Your task to perform on an android device: choose inbox layout in the gmail app Image 0: 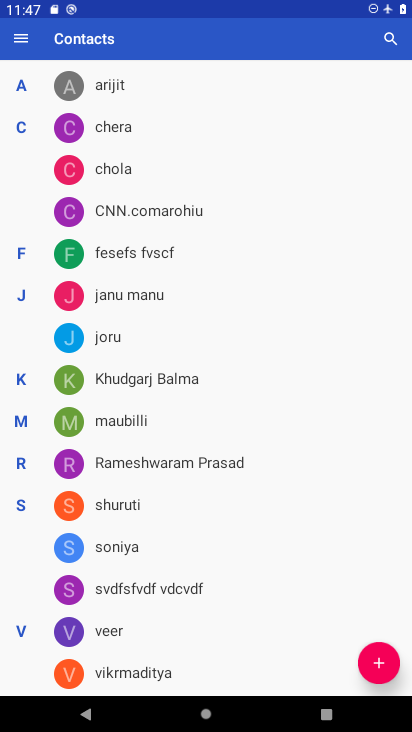
Step 0: press home button
Your task to perform on an android device: choose inbox layout in the gmail app Image 1: 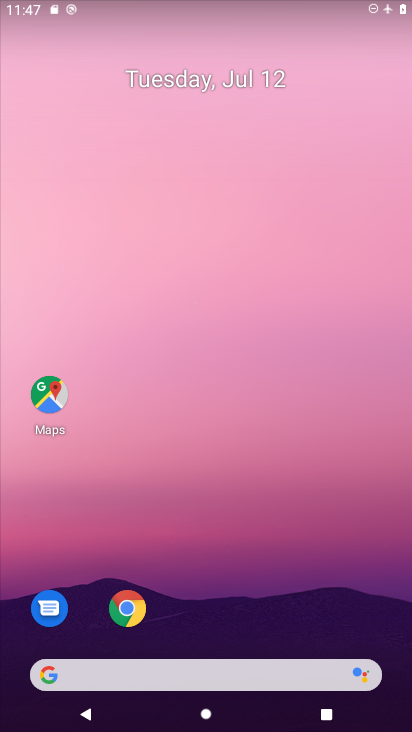
Step 1: drag from (238, 718) to (252, 117)
Your task to perform on an android device: choose inbox layout in the gmail app Image 2: 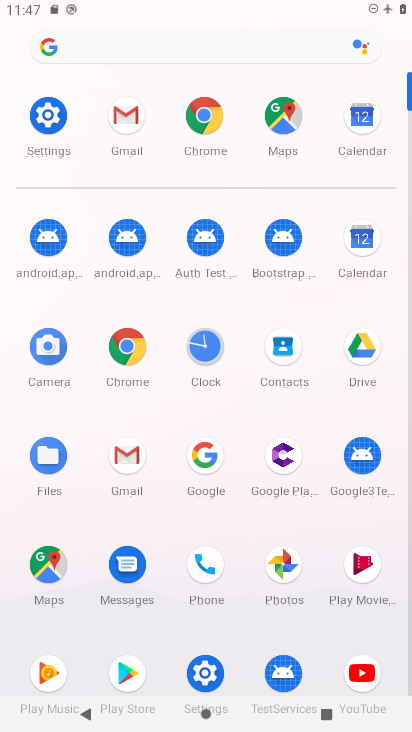
Step 2: click (127, 458)
Your task to perform on an android device: choose inbox layout in the gmail app Image 3: 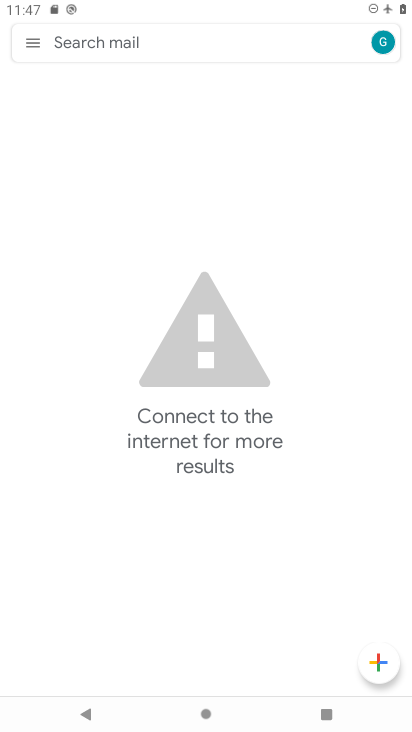
Step 3: click (26, 38)
Your task to perform on an android device: choose inbox layout in the gmail app Image 4: 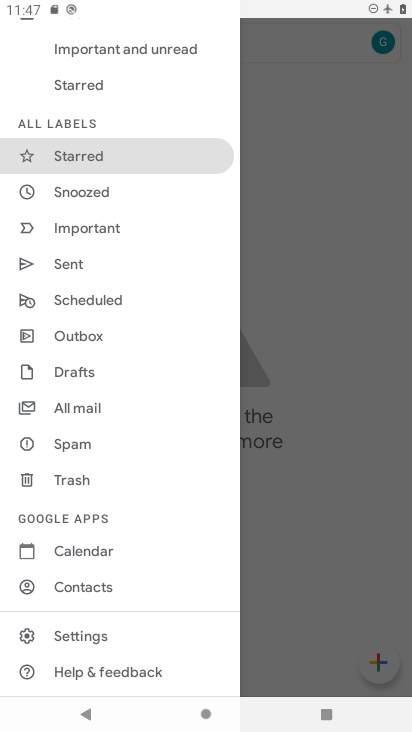
Step 4: click (84, 633)
Your task to perform on an android device: choose inbox layout in the gmail app Image 5: 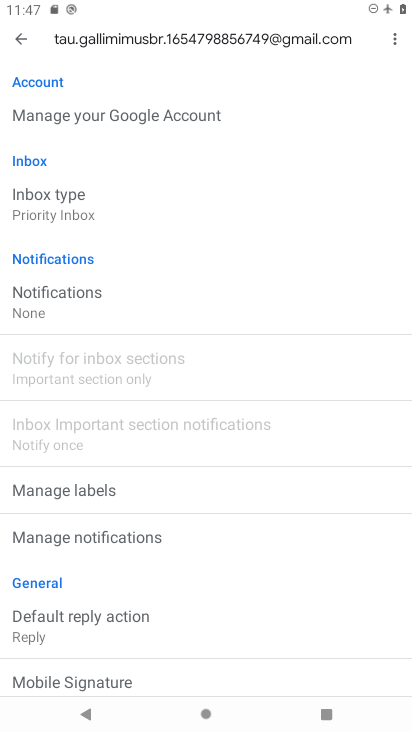
Step 5: click (44, 206)
Your task to perform on an android device: choose inbox layout in the gmail app Image 6: 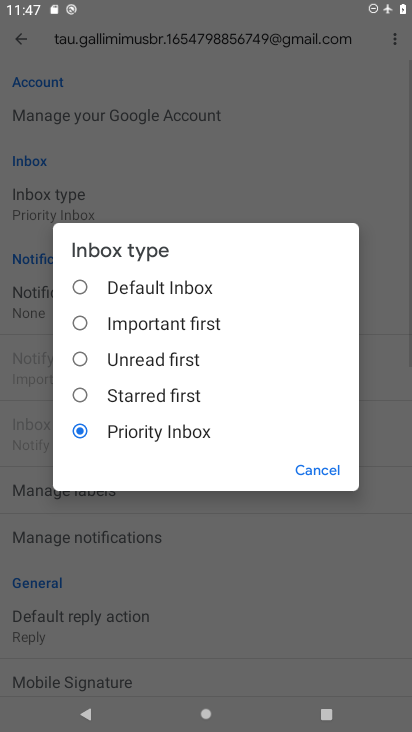
Step 6: click (78, 280)
Your task to perform on an android device: choose inbox layout in the gmail app Image 7: 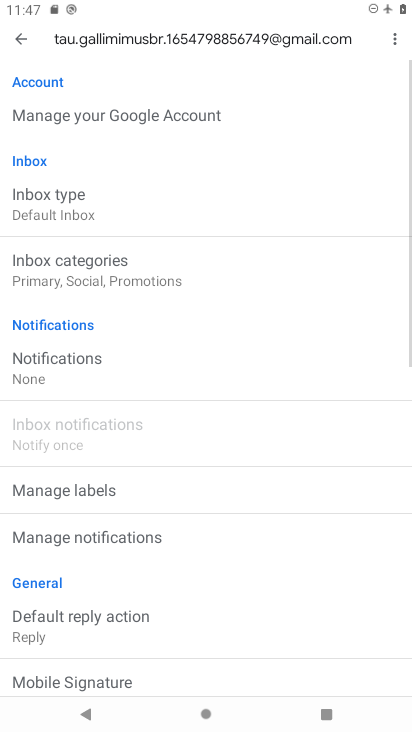
Step 7: task complete